Your task to perform on an android device: add a label to a message in the gmail app Image 0: 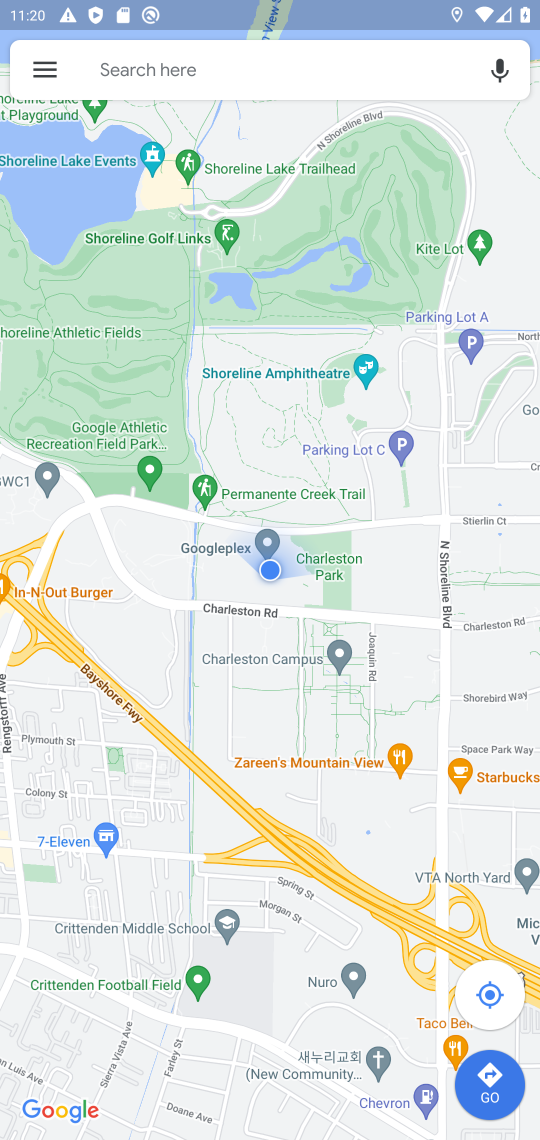
Step 0: press home button
Your task to perform on an android device: add a label to a message in the gmail app Image 1: 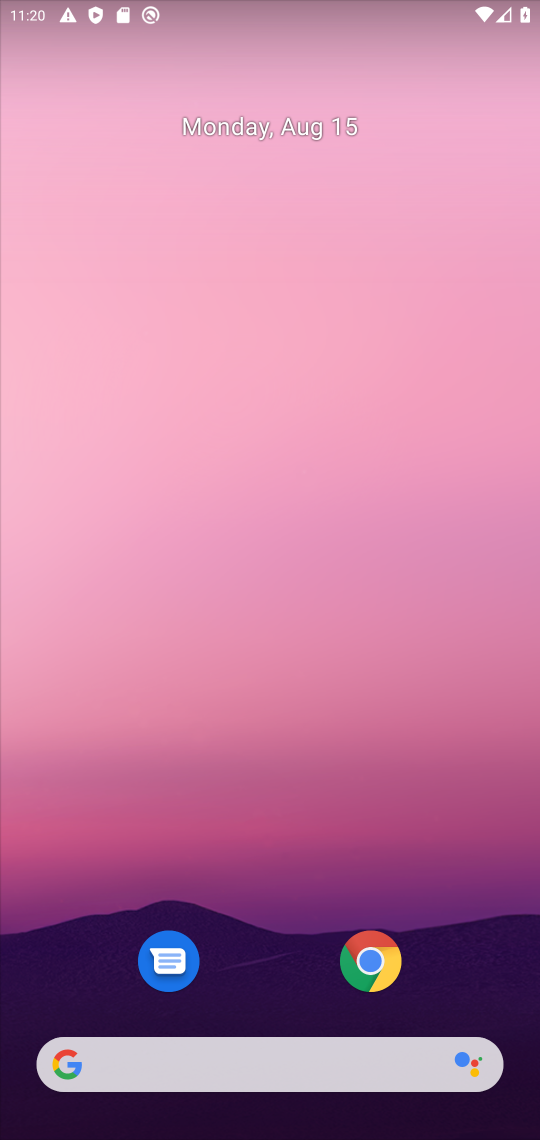
Step 1: drag from (309, 894) to (366, 61)
Your task to perform on an android device: add a label to a message in the gmail app Image 2: 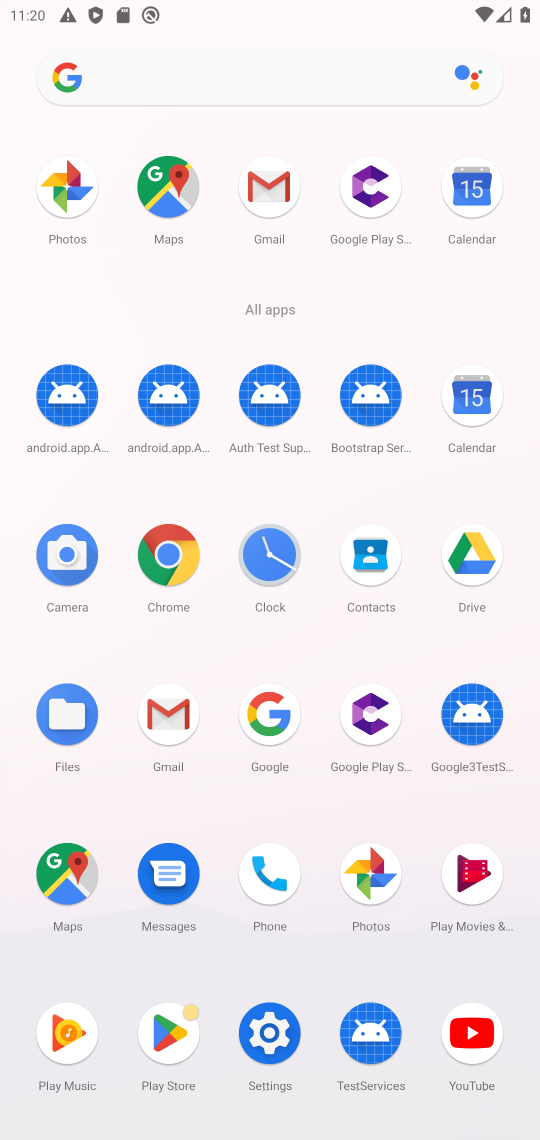
Step 2: click (152, 721)
Your task to perform on an android device: add a label to a message in the gmail app Image 3: 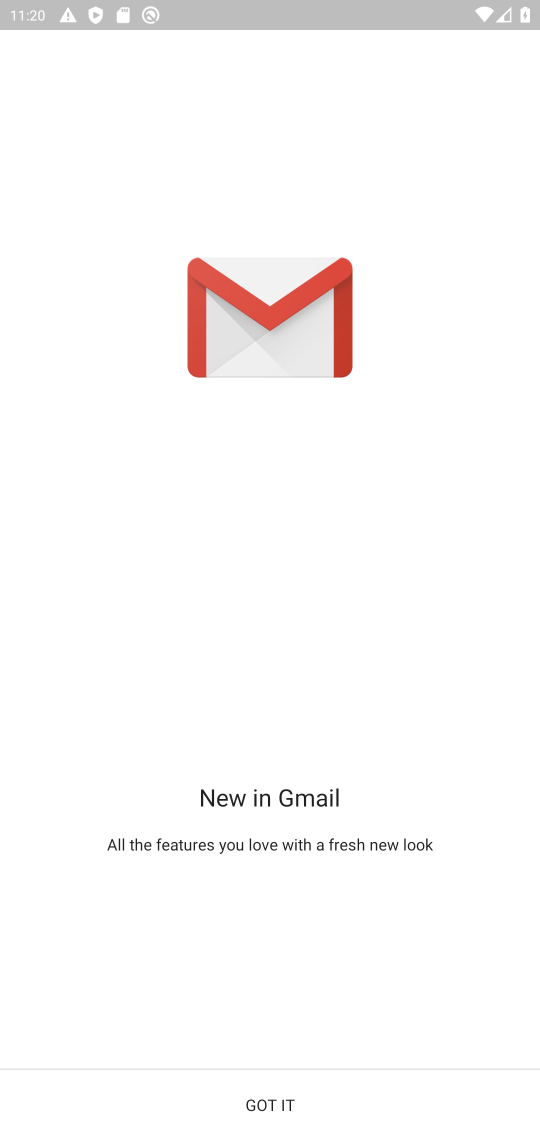
Step 3: click (268, 1083)
Your task to perform on an android device: add a label to a message in the gmail app Image 4: 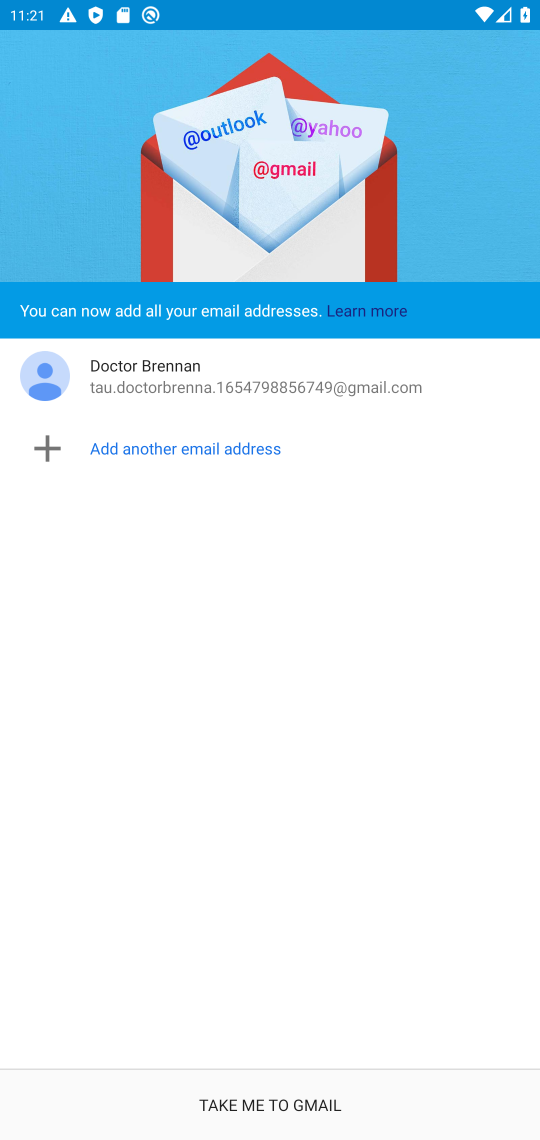
Step 4: click (326, 1101)
Your task to perform on an android device: add a label to a message in the gmail app Image 5: 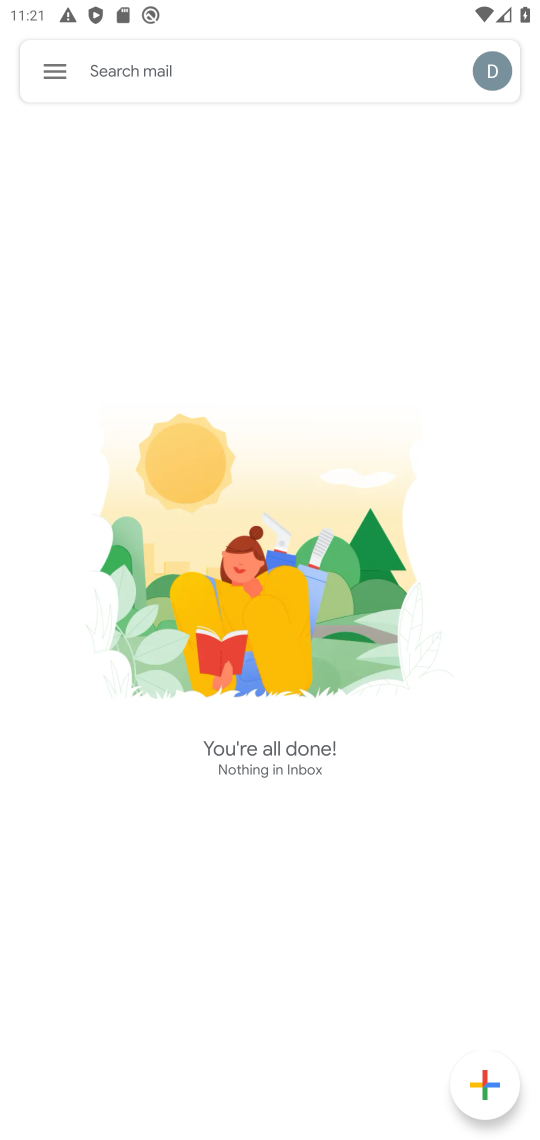
Step 5: click (61, 75)
Your task to perform on an android device: add a label to a message in the gmail app Image 6: 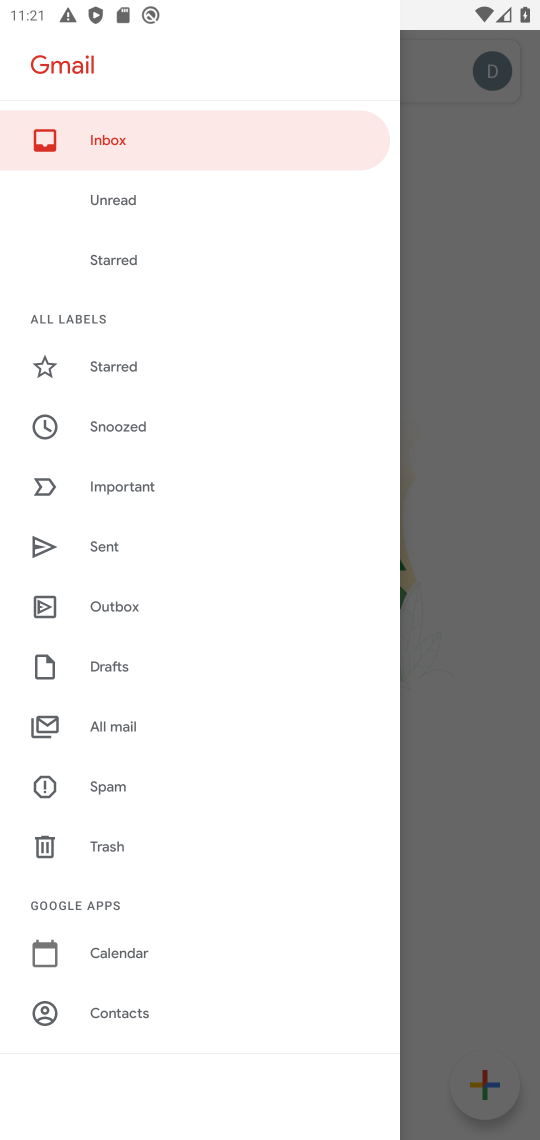
Step 6: click (132, 725)
Your task to perform on an android device: add a label to a message in the gmail app Image 7: 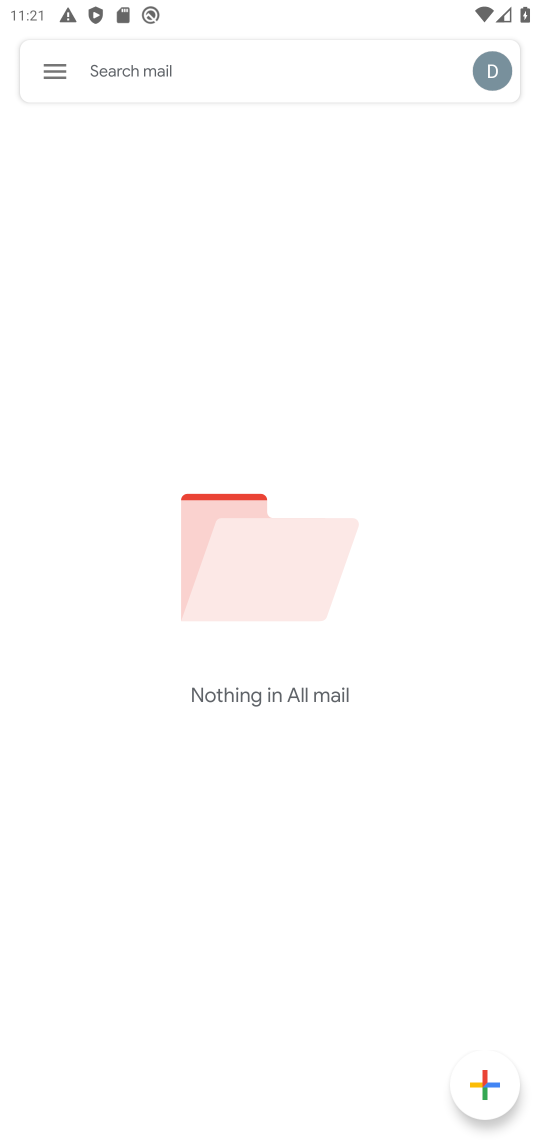
Step 7: task complete